Your task to perform on an android device: Do I have any events today? Image 0: 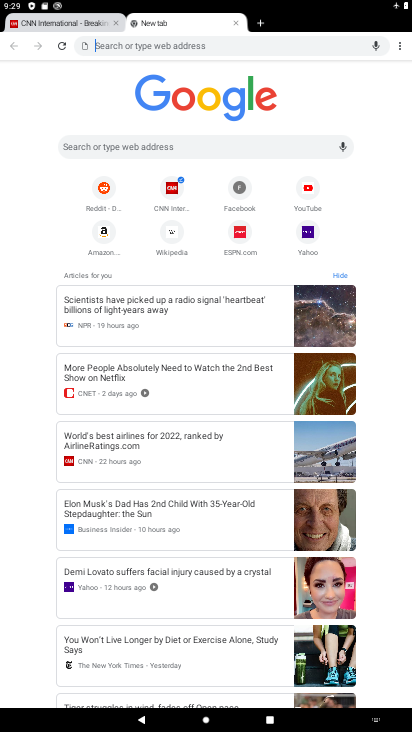
Step 0: press home button
Your task to perform on an android device: Do I have any events today? Image 1: 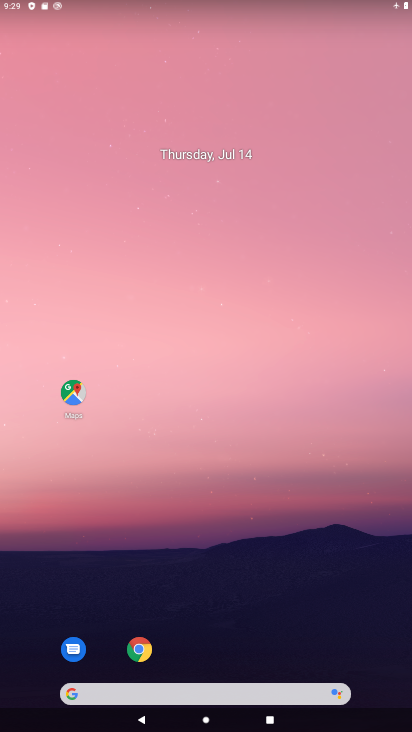
Step 1: drag from (197, 634) to (171, 55)
Your task to perform on an android device: Do I have any events today? Image 2: 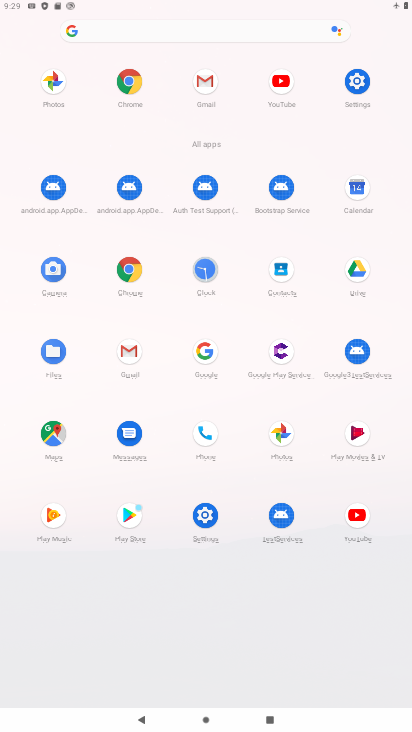
Step 2: click (355, 206)
Your task to perform on an android device: Do I have any events today? Image 3: 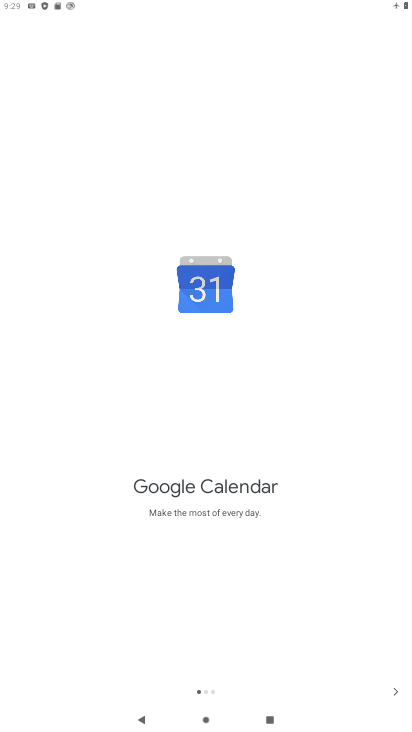
Step 3: click (397, 700)
Your task to perform on an android device: Do I have any events today? Image 4: 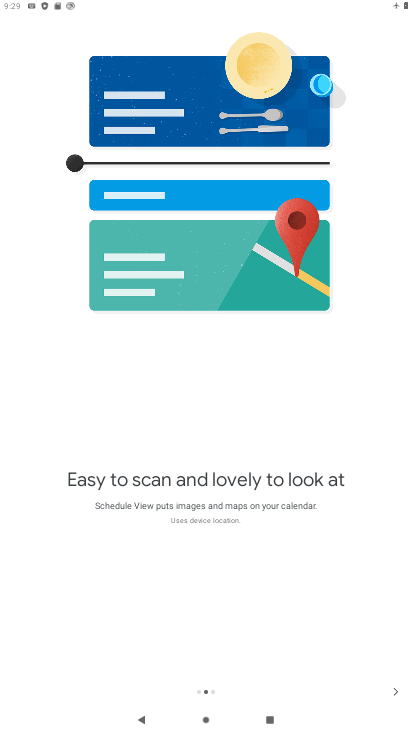
Step 4: click (395, 700)
Your task to perform on an android device: Do I have any events today? Image 5: 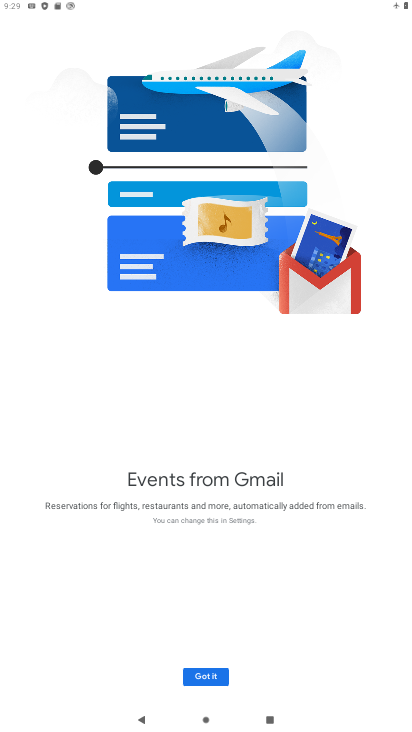
Step 5: click (194, 676)
Your task to perform on an android device: Do I have any events today? Image 6: 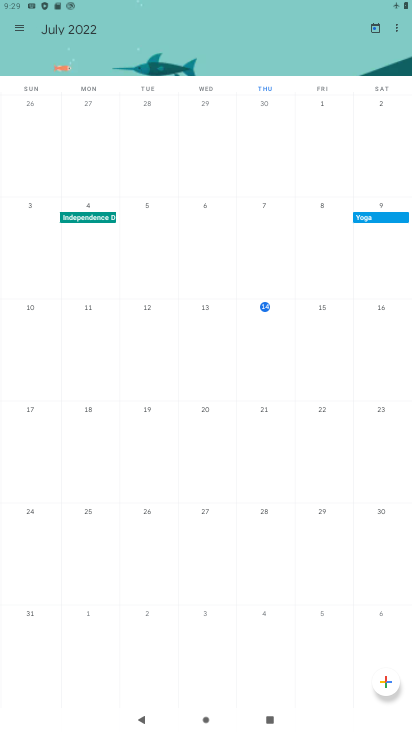
Step 6: task complete